Your task to perform on an android device: change the clock display to digital Image 0: 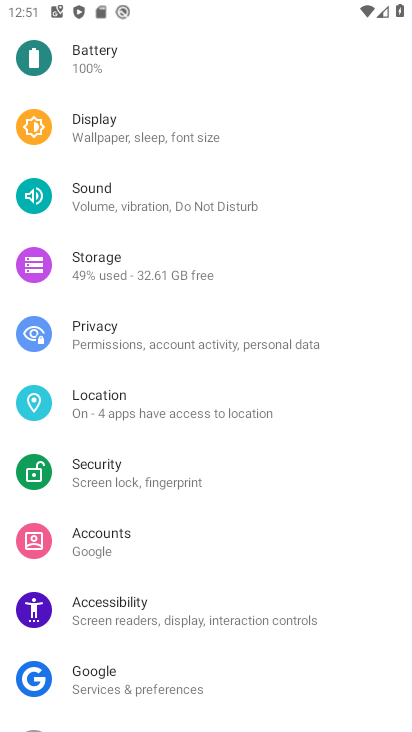
Step 0: press back button
Your task to perform on an android device: change the clock display to digital Image 1: 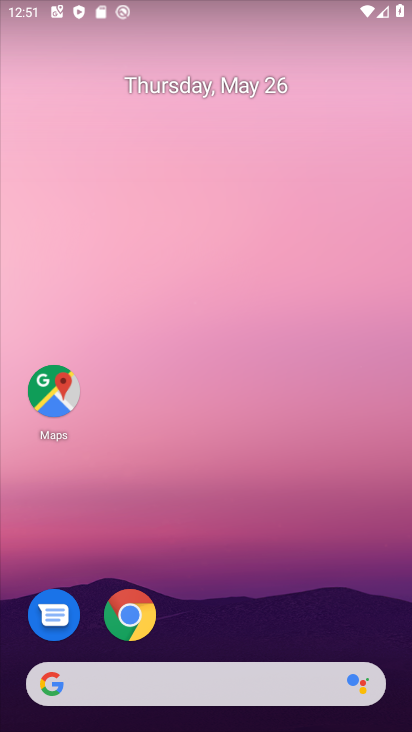
Step 1: drag from (223, 569) to (335, 5)
Your task to perform on an android device: change the clock display to digital Image 2: 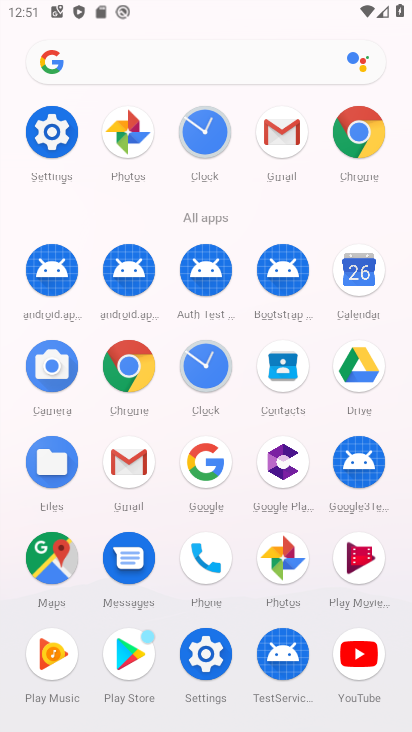
Step 2: click (216, 375)
Your task to perform on an android device: change the clock display to digital Image 3: 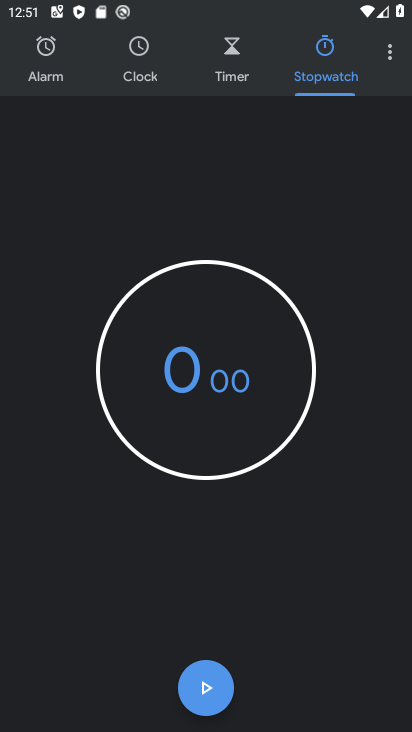
Step 3: drag from (388, 40) to (314, 194)
Your task to perform on an android device: change the clock display to digital Image 4: 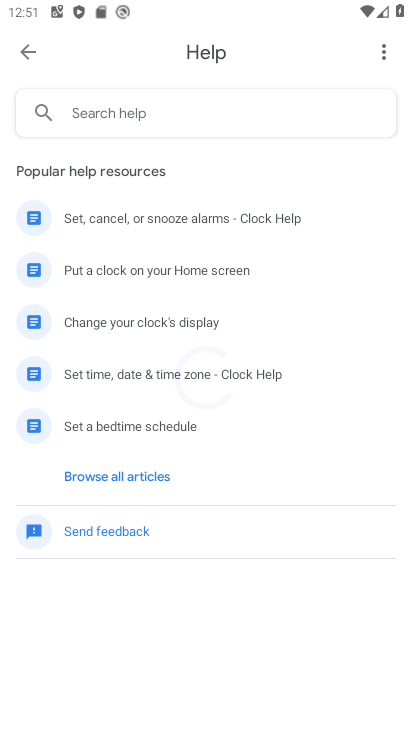
Step 4: press back button
Your task to perform on an android device: change the clock display to digital Image 5: 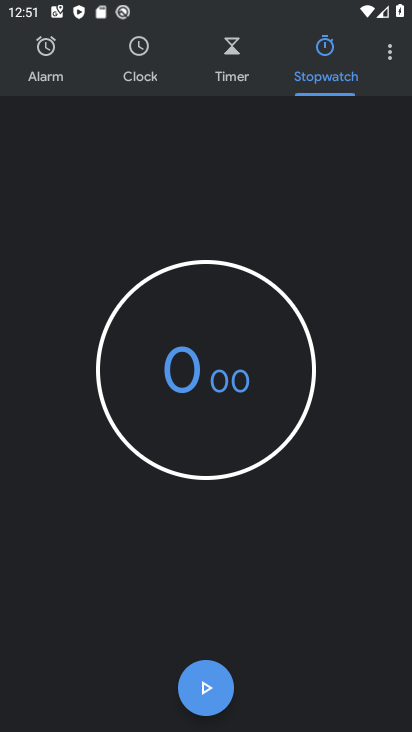
Step 5: click (396, 43)
Your task to perform on an android device: change the clock display to digital Image 6: 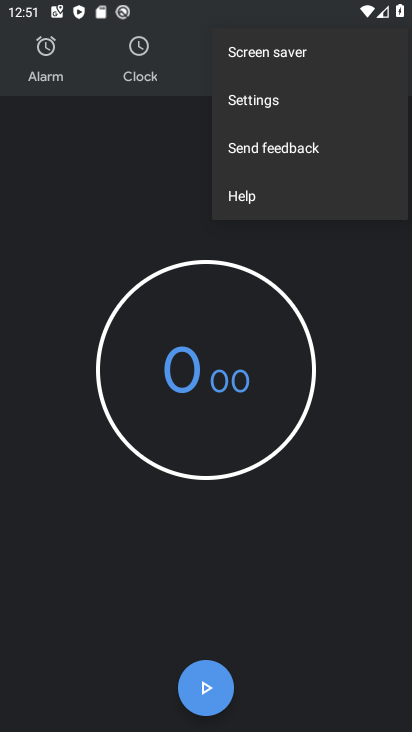
Step 6: click (287, 101)
Your task to perform on an android device: change the clock display to digital Image 7: 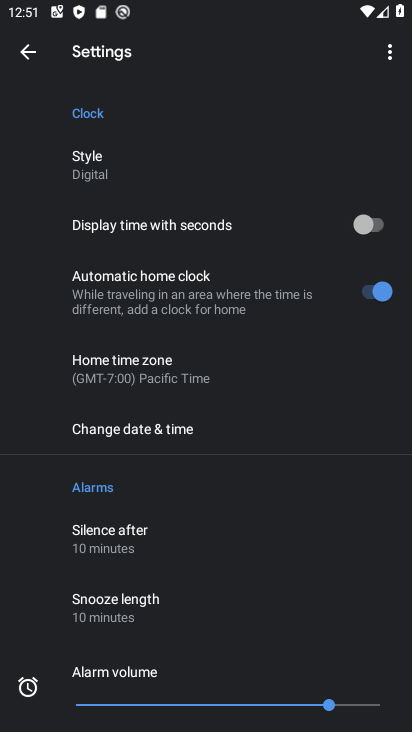
Step 7: task complete